Your task to perform on an android device: Open Android settings Image 0: 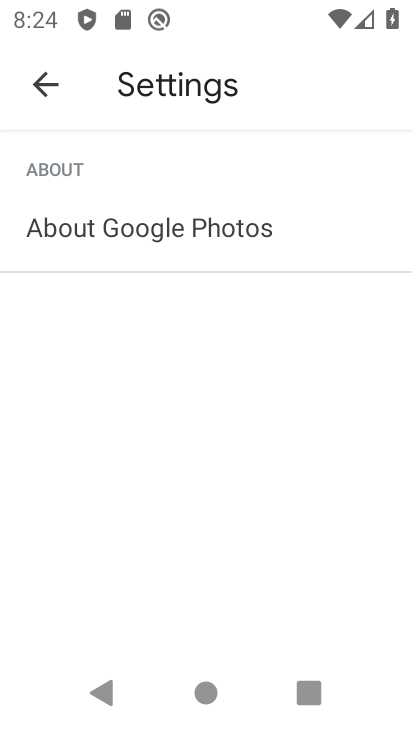
Step 0: press home button
Your task to perform on an android device: Open Android settings Image 1: 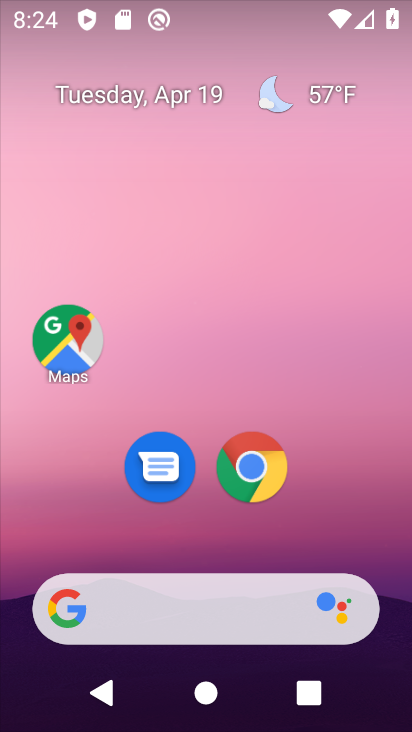
Step 1: drag from (382, 544) to (372, 28)
Your task to perform on an android device: Open Android settings Image 2: 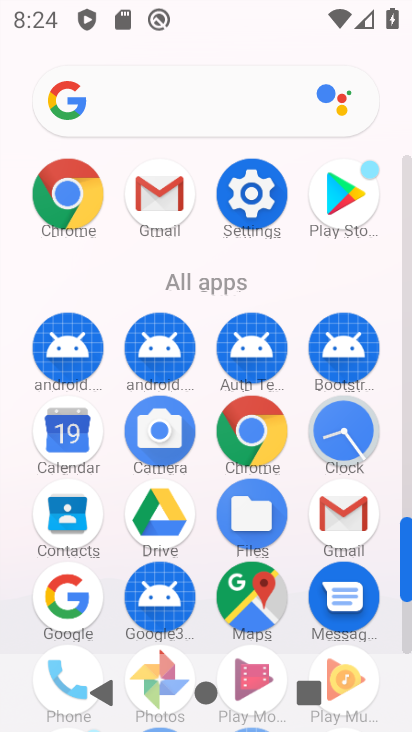
Step 2: drag from (407, 416) to (408, 379)
Your task to perform on an android device: Open Android settings Image 3: 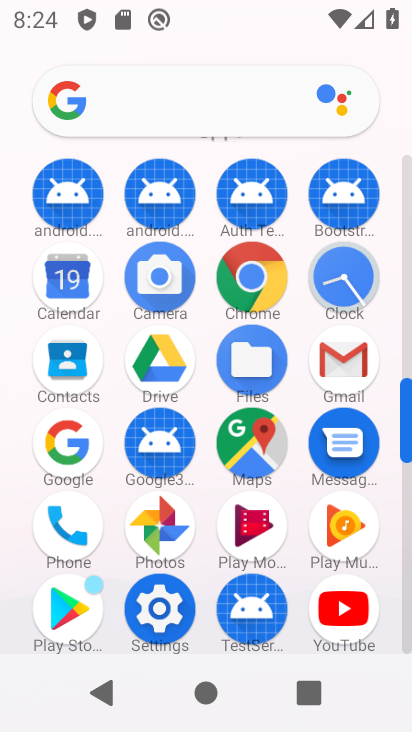
Step 3: click (165, 614)
Your task to perform on an android device: Open Android settings Image 4: 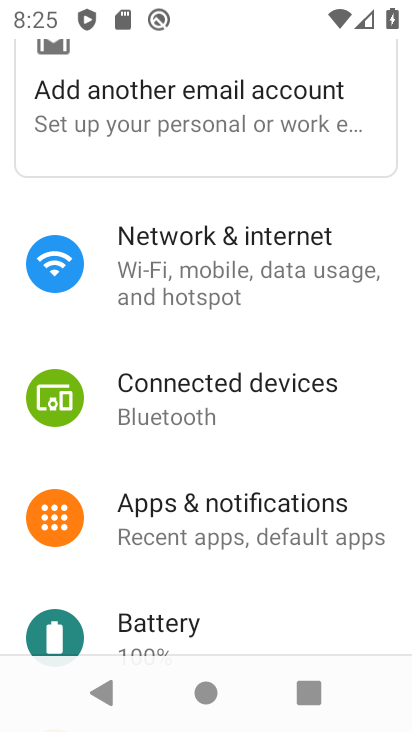
Step 4: drag from (284, 601) to (267, 215)
Your task to perform on an android device: Open Android settings Image 5: 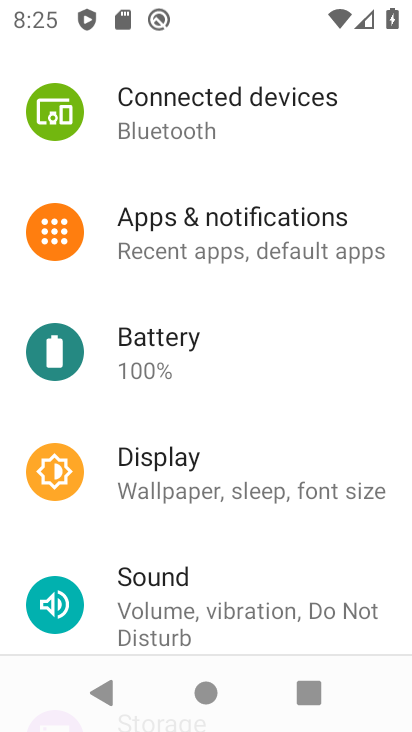
Step 5: drag from (213, 487) to (184, 157)
Your task to perform on an android device: Open Android settings Image 6: 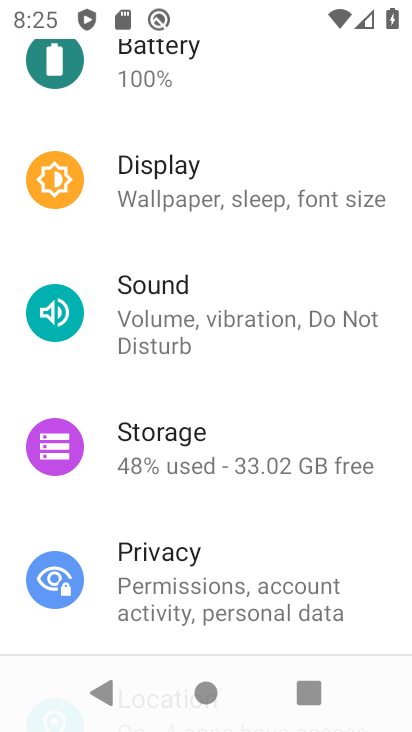
Step 6: drag from (219, 482) to (217, 185)
Your task to perform on an android device: Open Android settings Image 7: 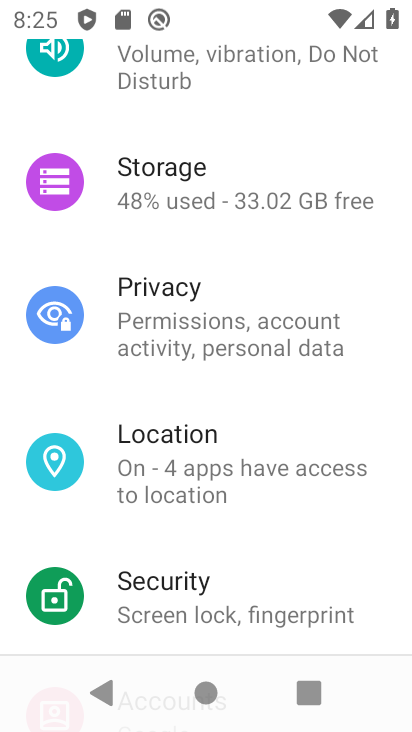
Step 7: drag from (214, 552) to (214, 225)
Your task to perform on an android device: Open Android settings Image 8: 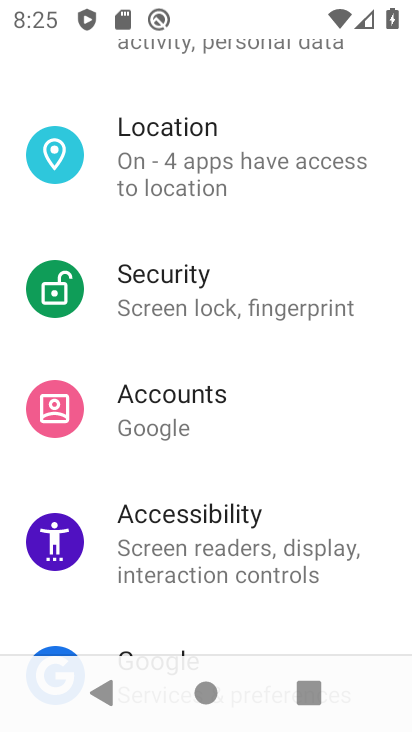
Step 8: drag from (228, 501) to (213, 214)
Your task to perform on an android device: Open Android settings Image 9: 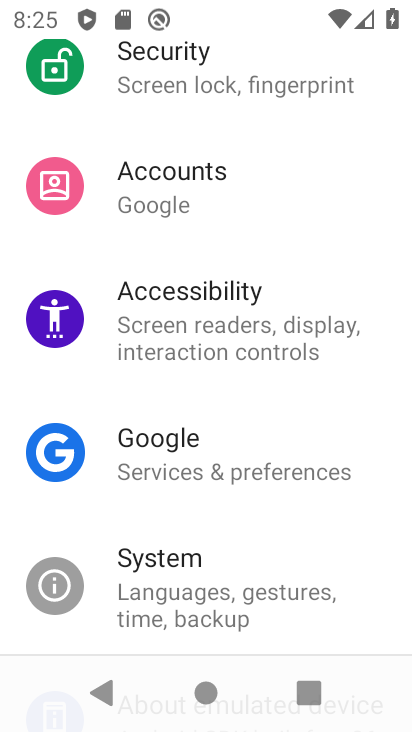
Step 9: drag from (236, 549) to (219, 278)
Your task to perform on an android device: Open Android settings Image 10: 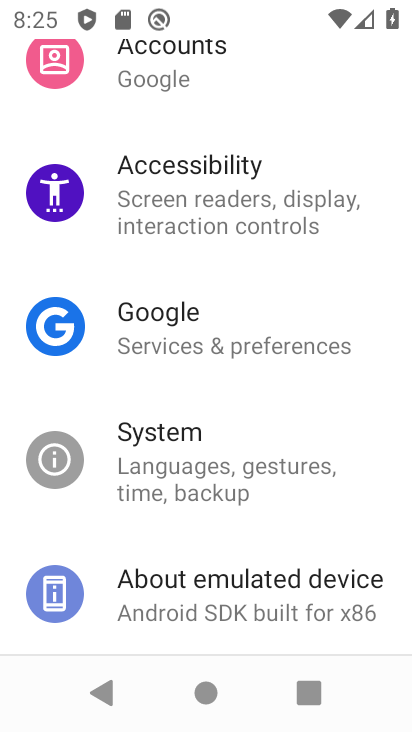
Step 10: click (186, 477)
Your task to perform on an android device: Open Android settings Image 11: 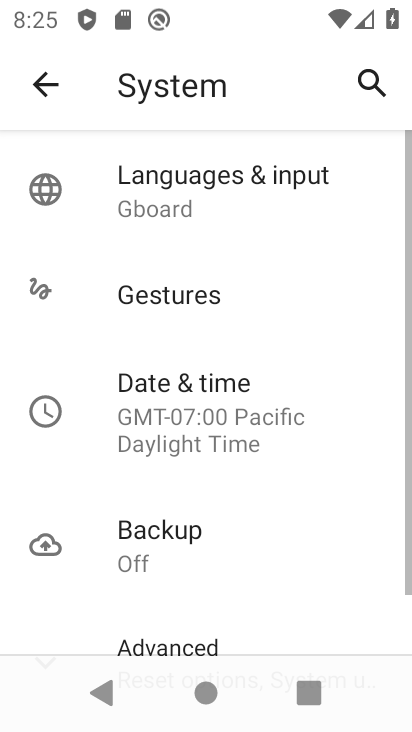
Step 11: drag from (288, 561) to (264, 248)
Your task to perform on an android device: Open Android settings Image 12: 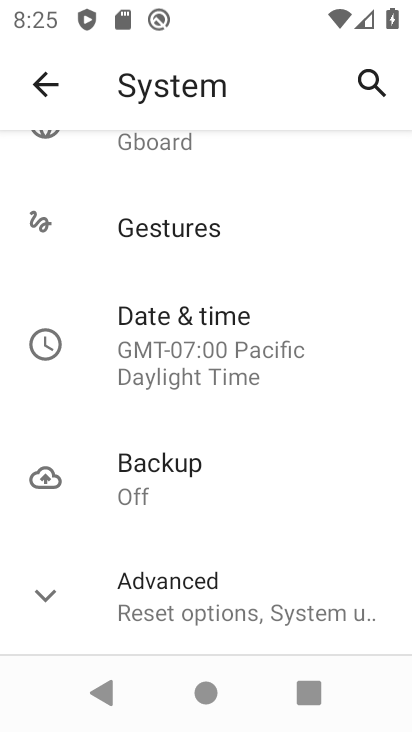
Step 12: click (51, 605)
Your task to perform on an android device: Open Android settings Image 13: 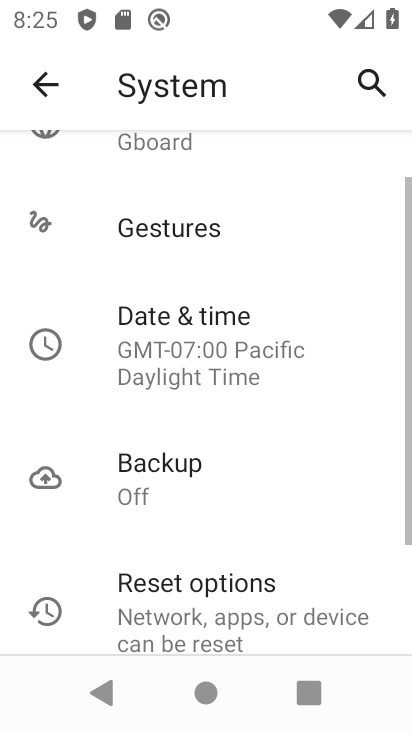
Step 13: task complete